Your task to perform on an android device: toggle data saver in the chrome app Image 0: 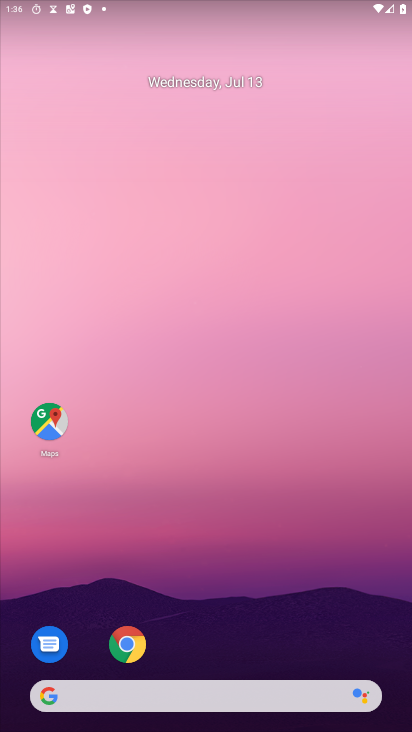
Step 0: press home button
Your task to perform on an android device: toggle data saver in the chrome app Image 1: 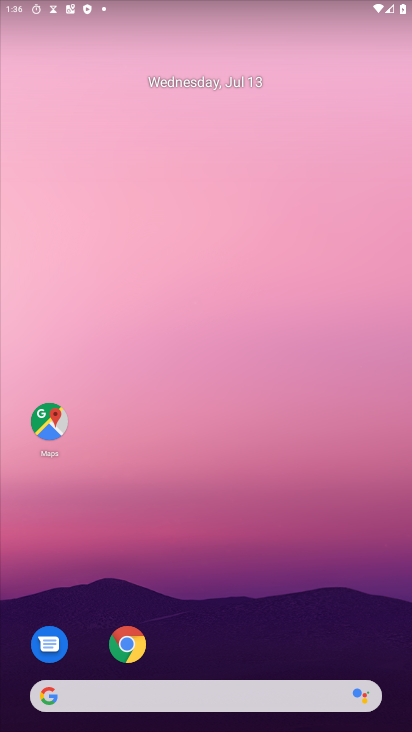
Step 1: click (136, 646)
Your task to perform on an android device: toggle data saver in the chrome app Image 2: 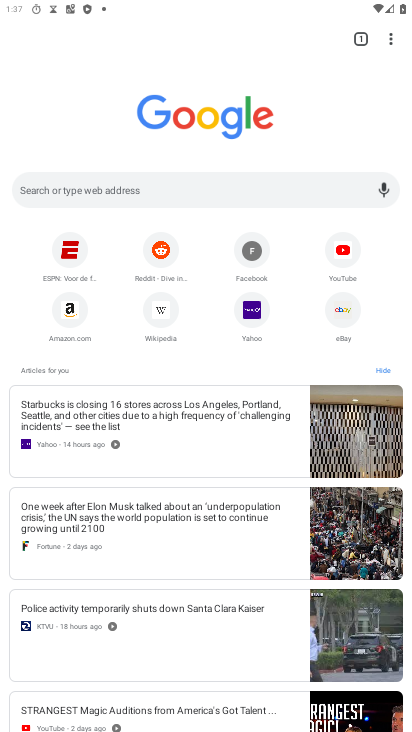
Step 2: drag from (396, 39) to (243, 336)
Your task to perform on an android device: toggle data saver in the chrome app Image 3: 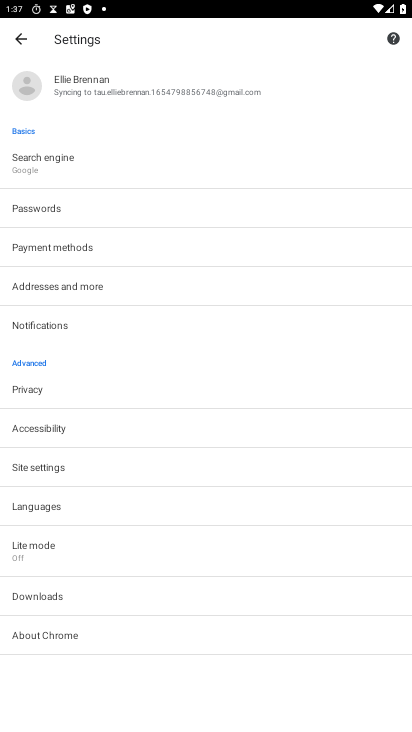
Step 3: click (32, 549)
Your task to perform on an android device: toggle data saver in the chrome app Image 4: 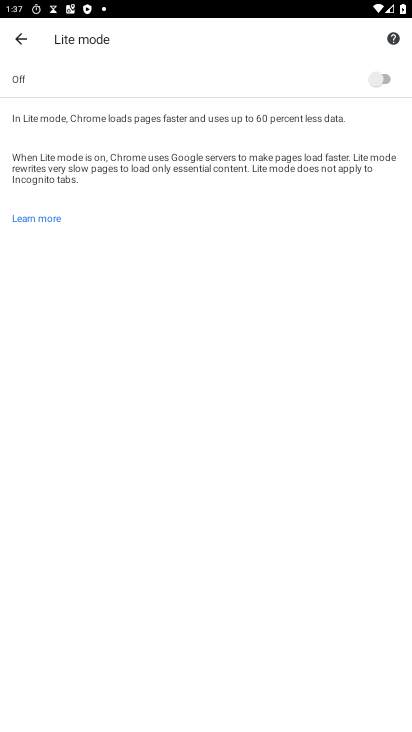
Step 4: click (383, 75)
Your task to perform on an android device: toggle data saver in the chrome app Image 5: 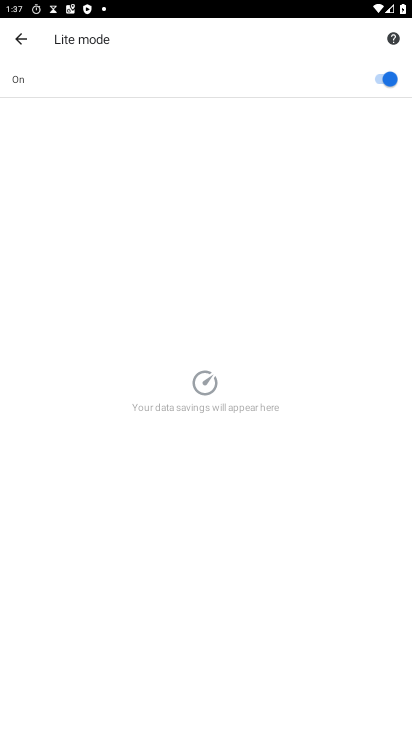
Step 5: task complete